Your task to perform on an android device: Open eBay Image 0: 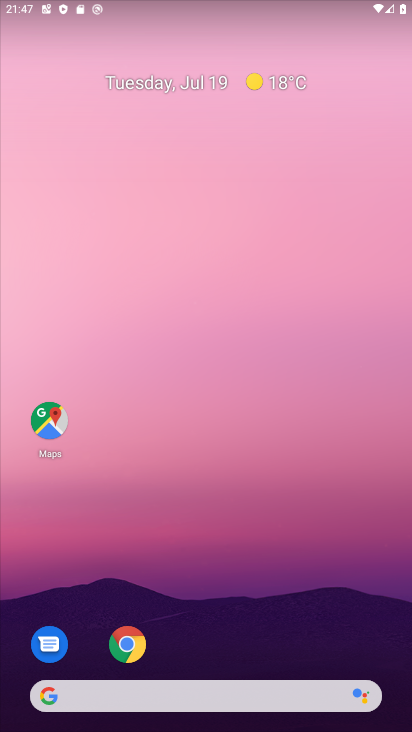
Step 0: click (129, 642)
Your task to perform on an android device: Open eBay Image 1: 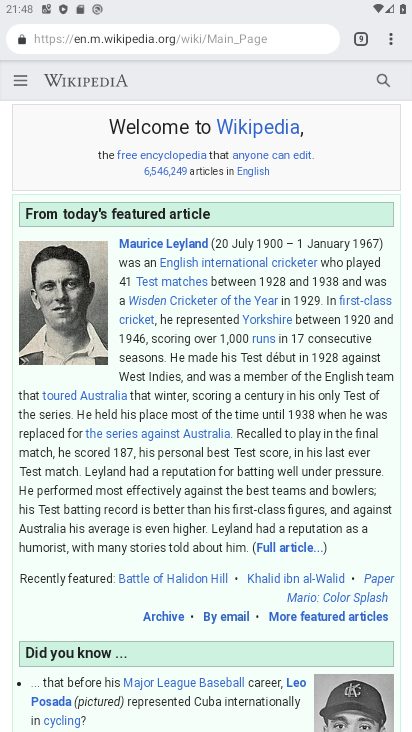
Step 1: click (391, 43)
Your task to perform on an android device: Open eBay Image 2: 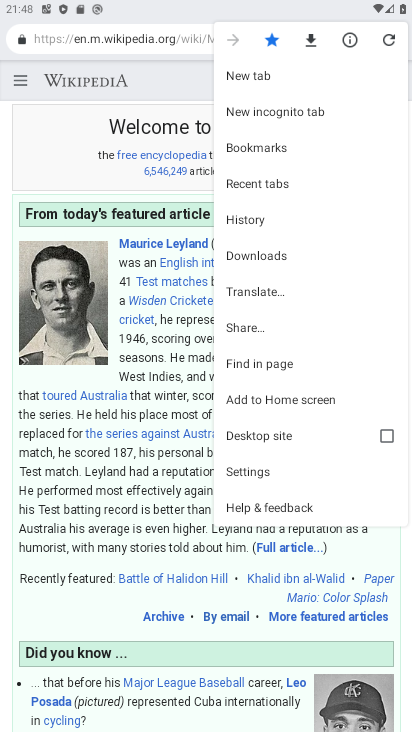
Step 2: click (250, 73)
Your task to perform on an android device: Open eBay Image 3: 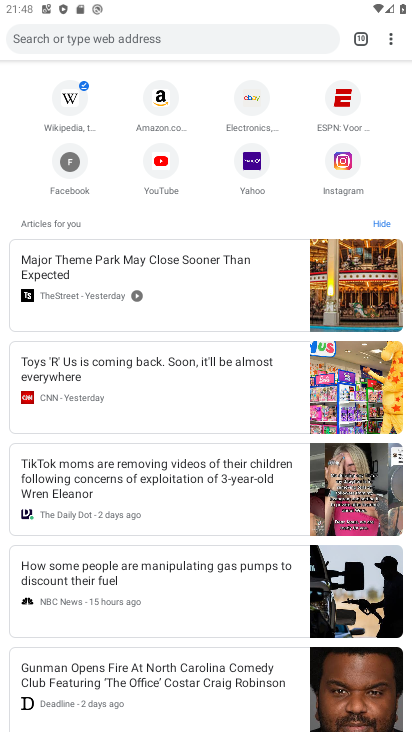
Step 3: click (226, 42)
Your task to perform on an android device: Open eBay Image 4: 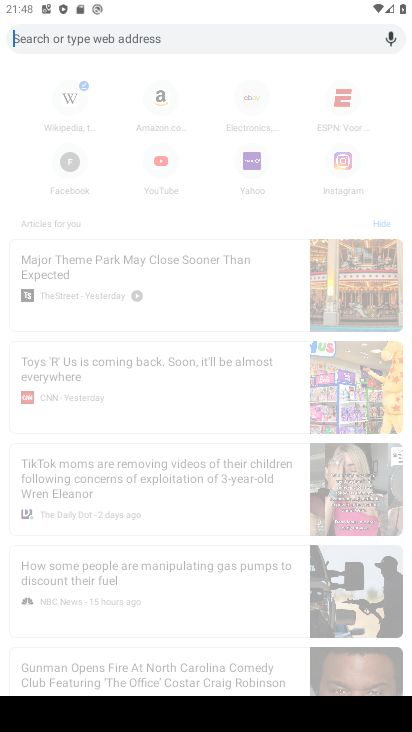
Step 4: type "eBay"
Your task to perform on an android device: Open eBay Image 5: 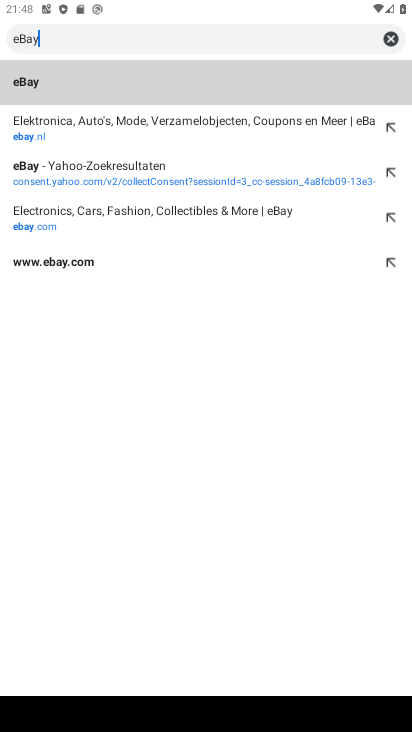
Step 5: click (134, 75)
Your task to perform on an android device: Open eBay Image 6: 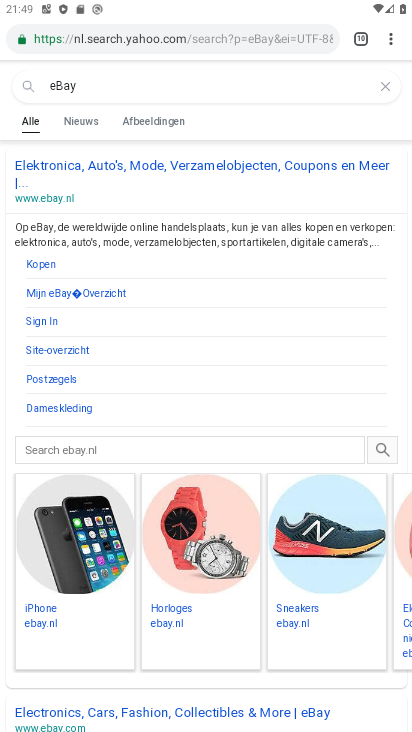
Step 6: click (36, 167)
Your task to perform on an android device: Open eBay Image 7: 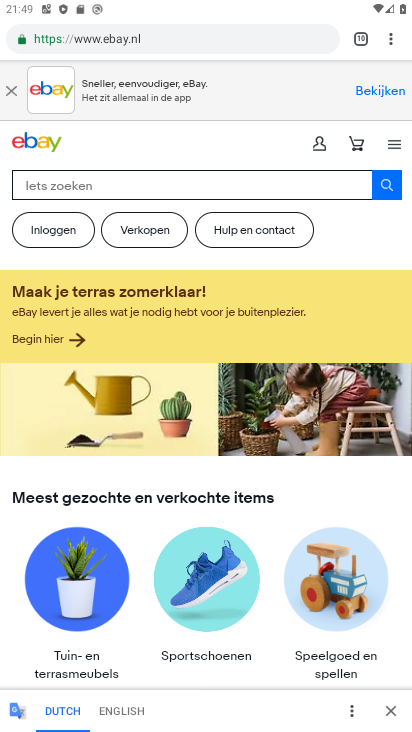
Step 7: task complete